Your task to perform on an android device: Search for vegetarian restaurants on Maps Image 0: 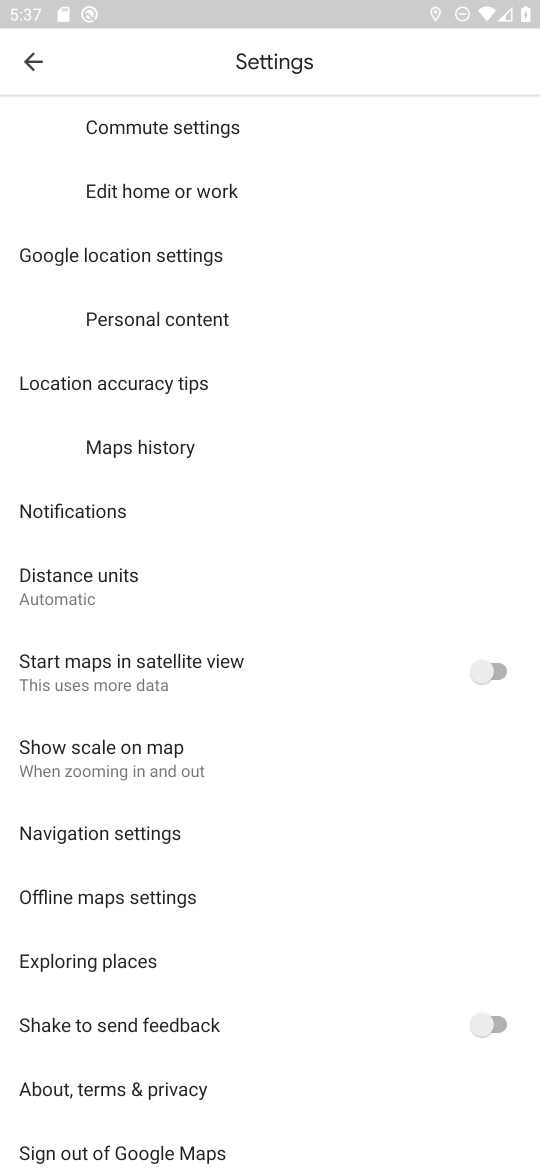
Step 0: press home button
Your task to perform on an android device: Search for vegetarian restaurants on Maps Image 1: 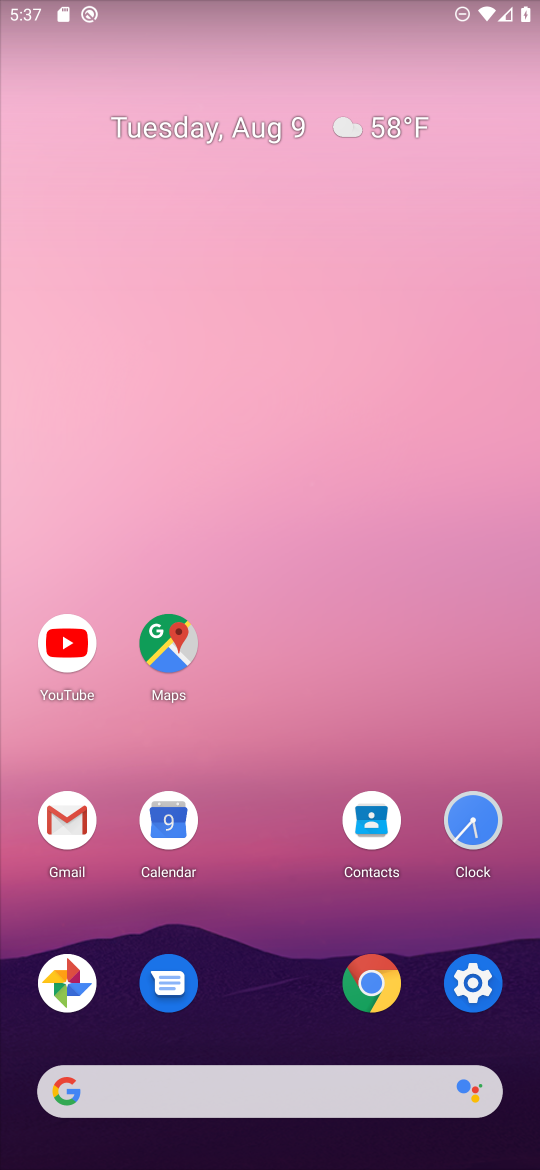
Step 1: click (166, 643)
Your task to perform on an android device: Search for vegetarian restaurants on Maps Image 2: 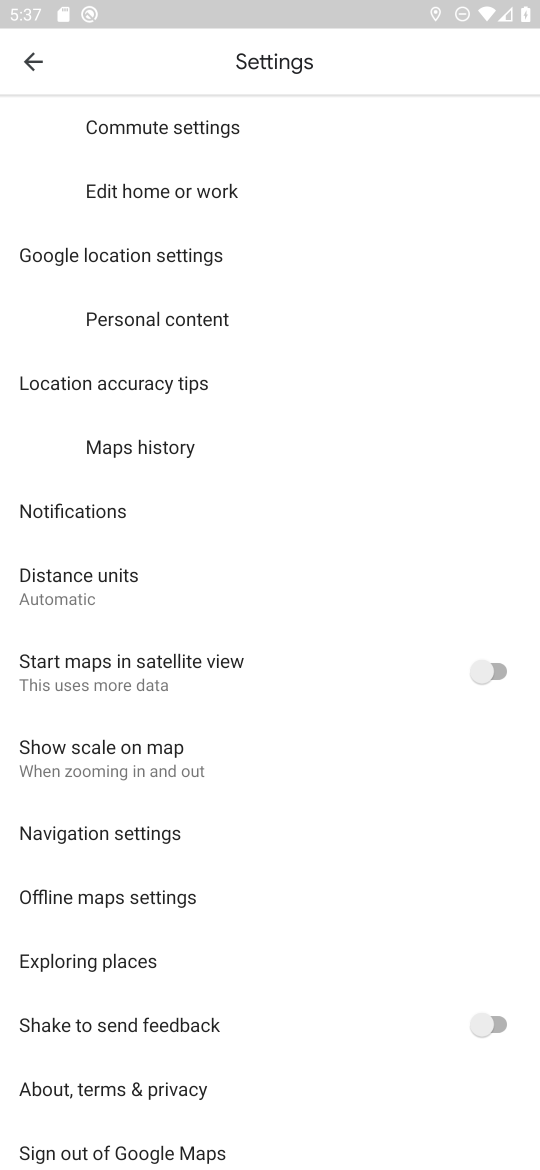
Step 2: click (32, 60)
Your task to perform on an android device: Search for vegetarian restaurants on Maps Image 3: 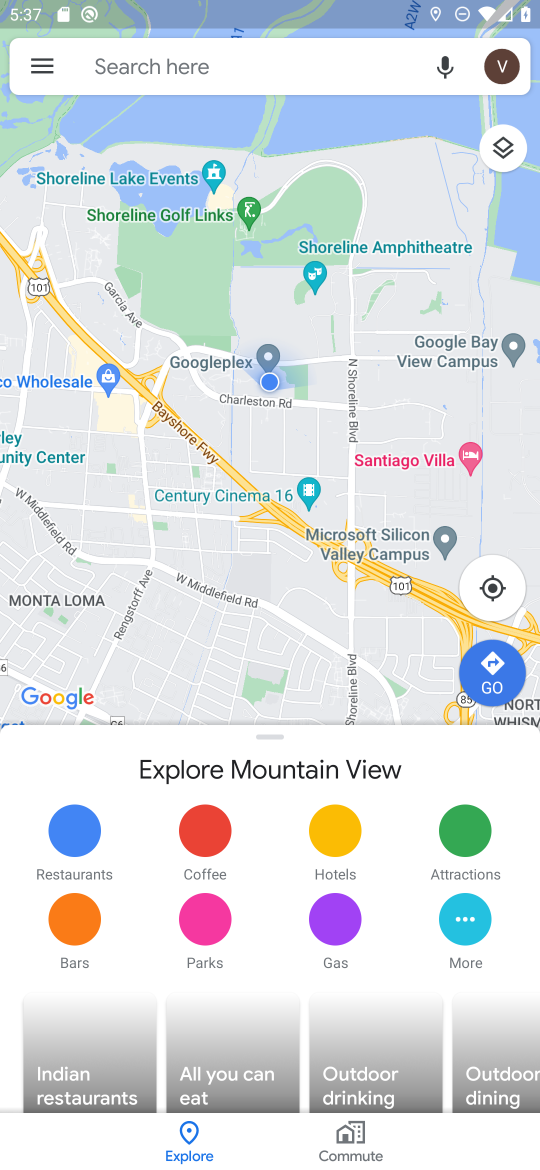
Step 3: click (103, 58)
Your task to perform on an android device: Search for vegetarian restaurants on Maps Image 4: 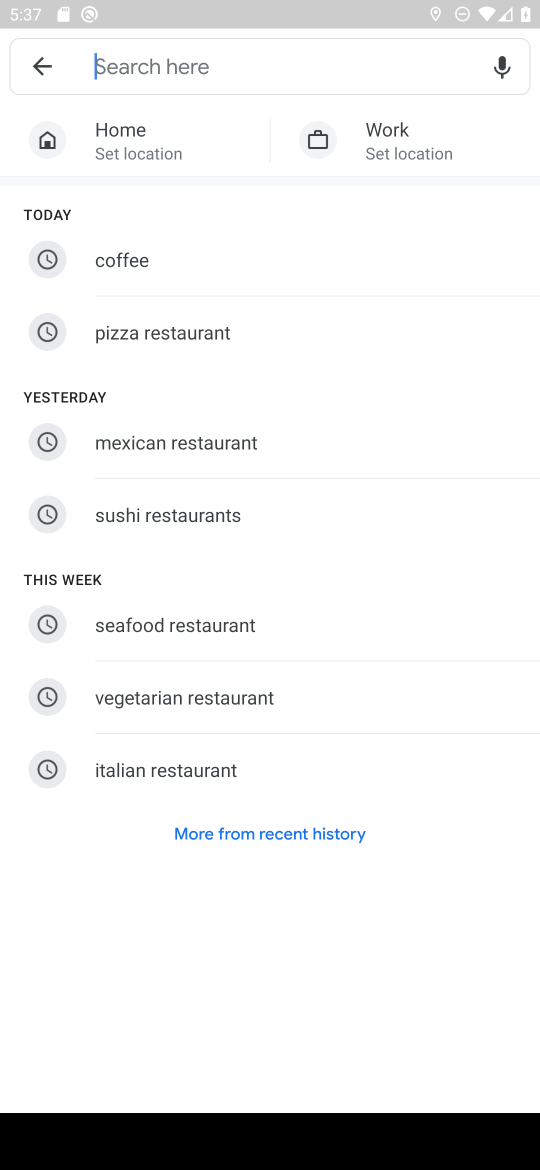
Step 4: click (183, 698)
Your task to perform on an android device: Search for vegetarian restaurants on Maps Image 5: 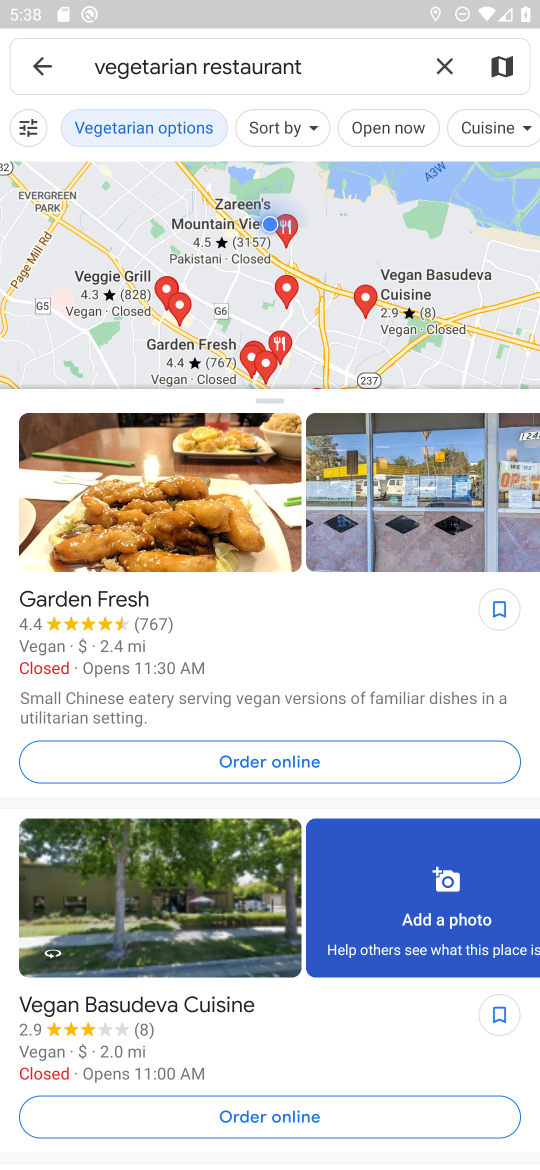
Step 5: task complete